Your task to perform on an android device: Go to eBay Image 0: 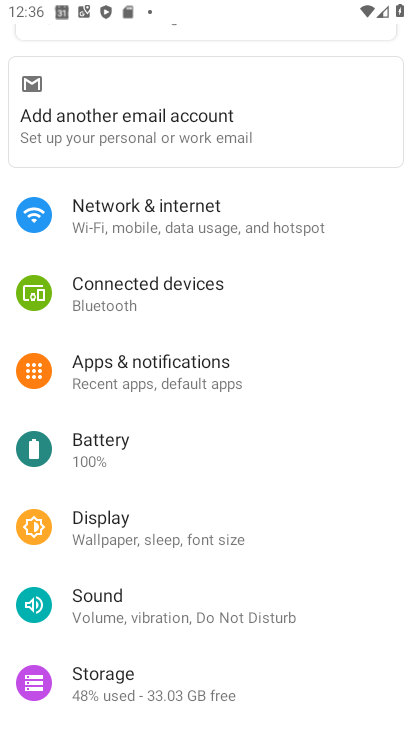
Step 0: press back button
Your task to perform on an android device: Go to eBay Image 1: 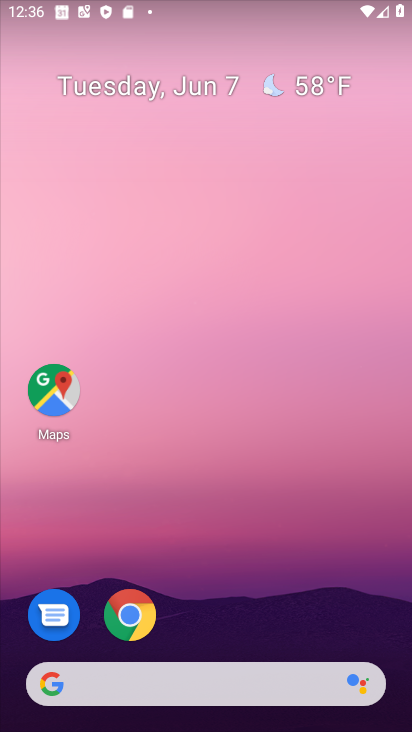
Step 1: click (131, 614)
Your task to perform on an android device: Go to eBay Image 2: 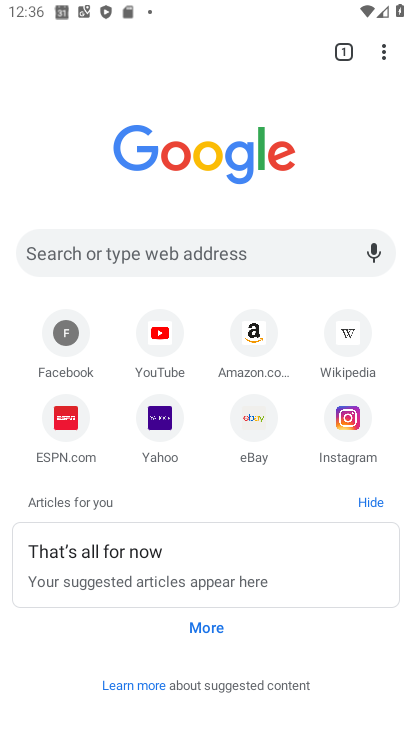
Step 2: click (250, 417)
Your task to perform on an android device: Go to eBay Image 3: 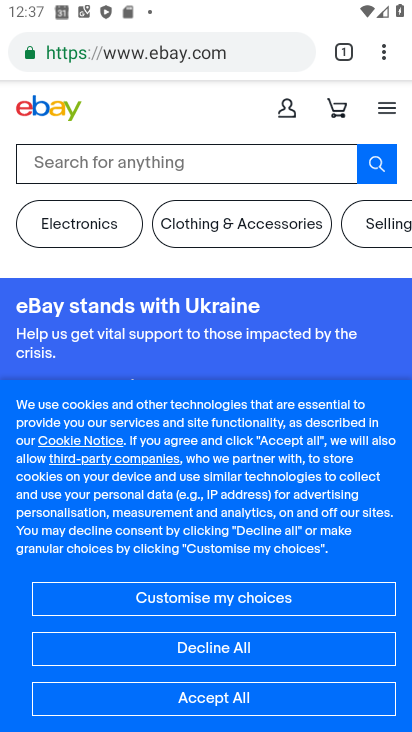
Step 3: task complete